Your task to perform on an android device: Open Maps and search for coffee Image 0: 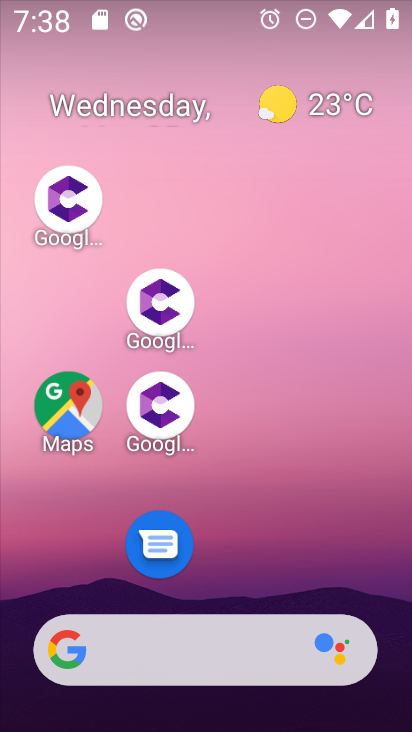
Step 0: click (67, 415)
Your task to perform on an android device: Open Maps and search for coffee Image 1: 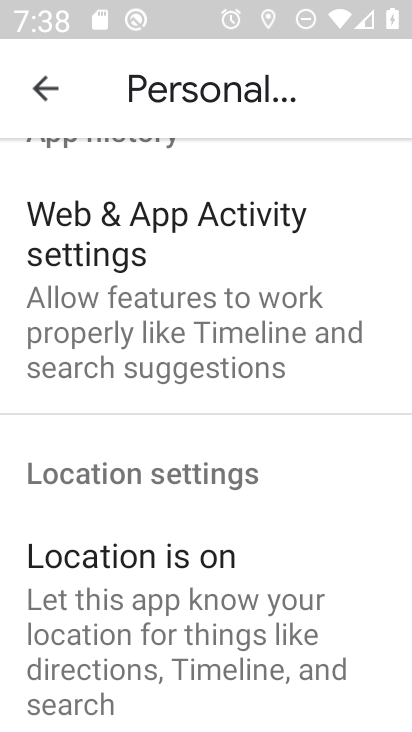
Step 1: click (41, 79)
Your task to perform on an android device: Open Maps and search for coffee Image 2: 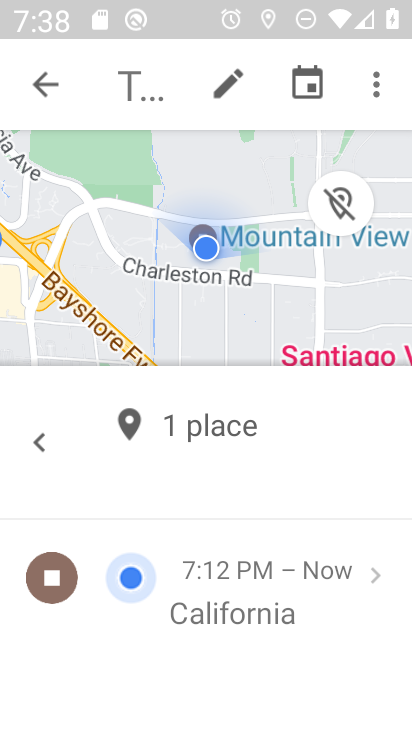
Step 2: click (47, 80)
Your task to perform on an android device: Open Maps and search for coffee Image 3: 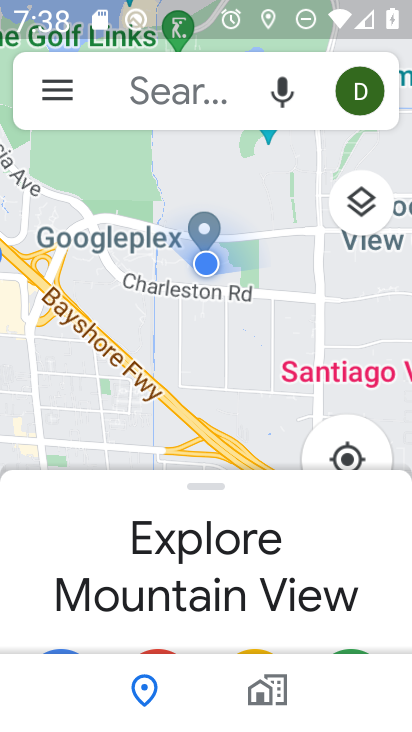
Step 3: click (156, 92)
Your task to perform on an android device: Open Maps and search for coffee Image 4: 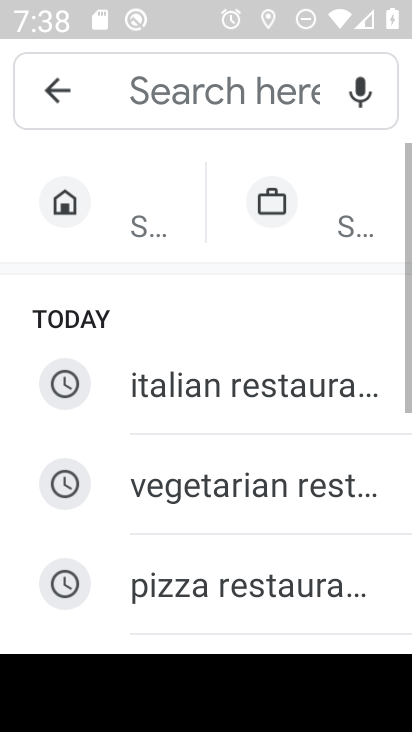
Step 4: click (207, 83)
Your task to perform on an android device: Open Maps and search for coffee Image 5: 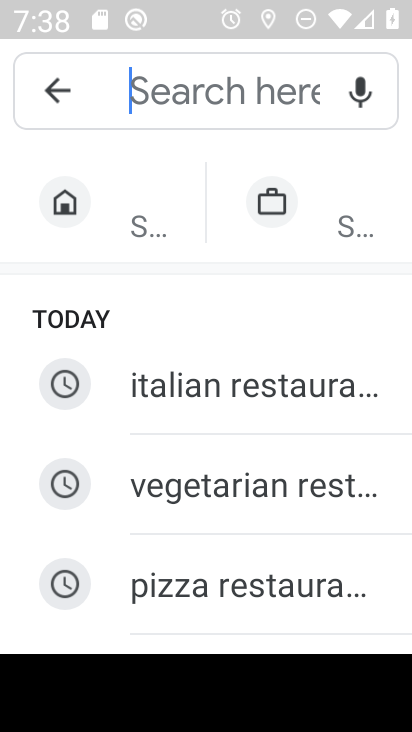
Step 5: type "coffee"
Your task to perform on an android device: Open Maps and search for coffee Image 6: 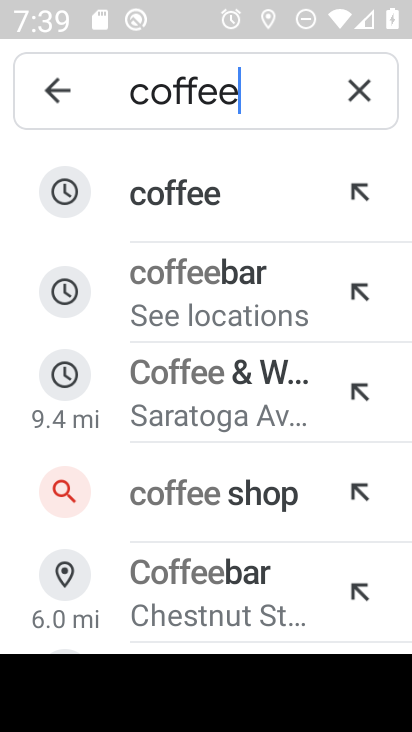
Step 6: click (178, 201)
Your task to perform on an android device: Open Maps and search for coffee Image 7: 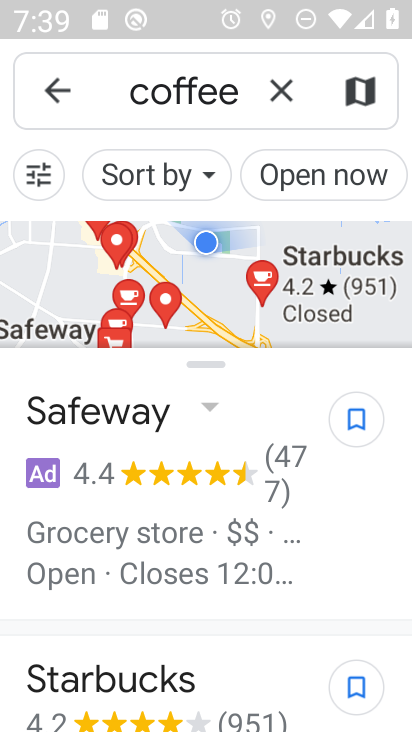
Step 7: task complete